Your task to perform on an android device: all mails in gmail Image 0: 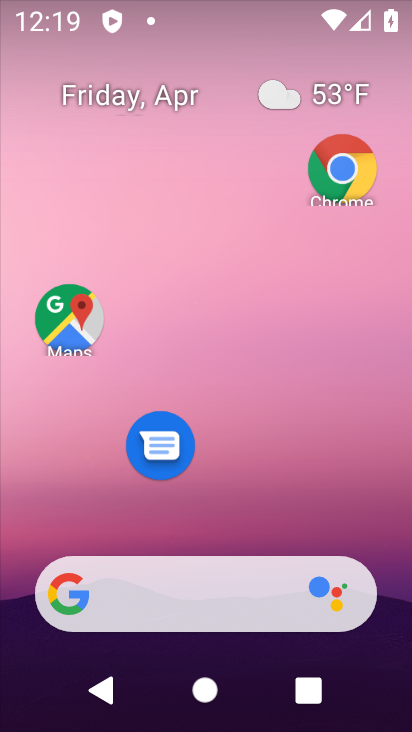
Step 0: drag from (256, 493) to (263, 96)
Your task to perform on an android device: all mails in gmail Image 1: 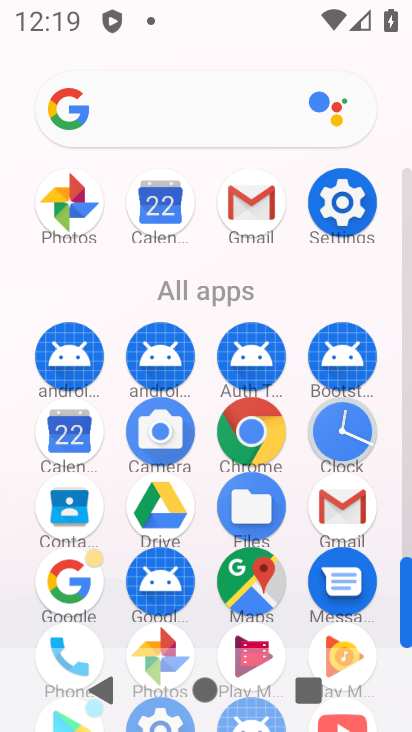
Step 1: click (257, 224)
Your task to perform on an android device: all mails in gmail Image 2: 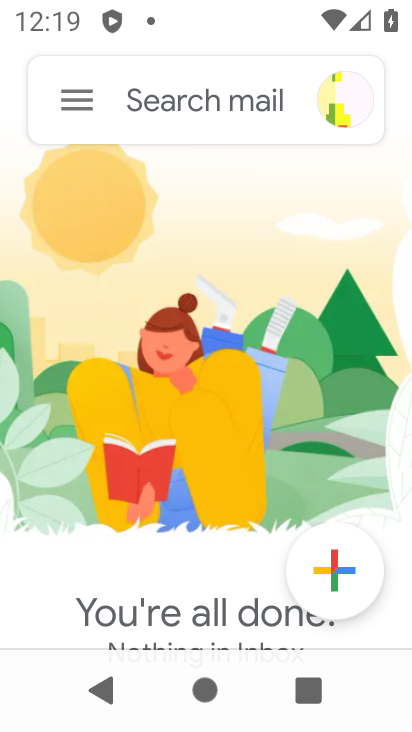
Step 2: click (85, 100)
Your task to perform on an android device: all mails in gmail Image 3: 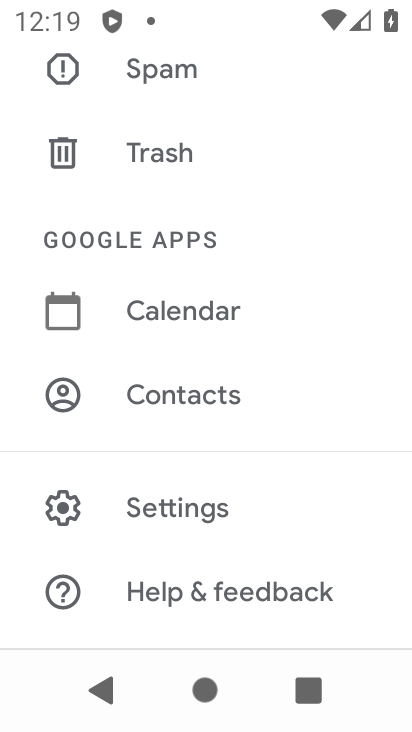
Step 3: drag from (195, 223) to (193, 574)
Your task to perform on an android device: all mails in gmail Image 4: 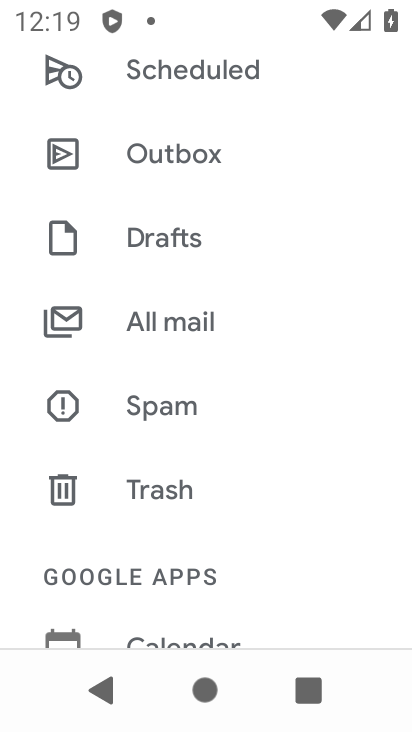
Step 4: click (187, 322)
Your task to perform on an android device: all mails in gmail Image 5: 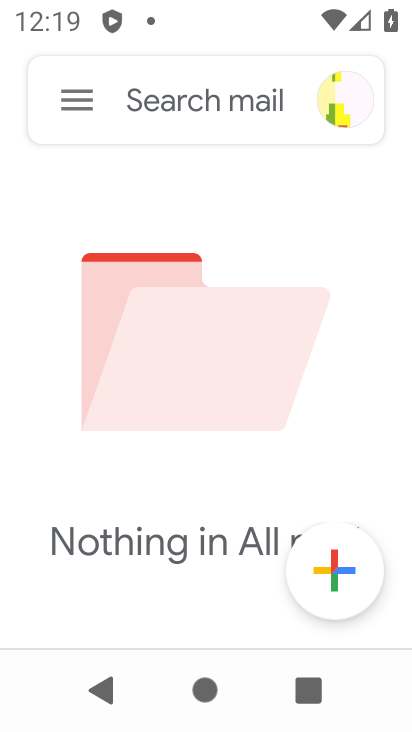
Step 5: task complete